Your task to perform on an android device: Open battery settings Image 0: 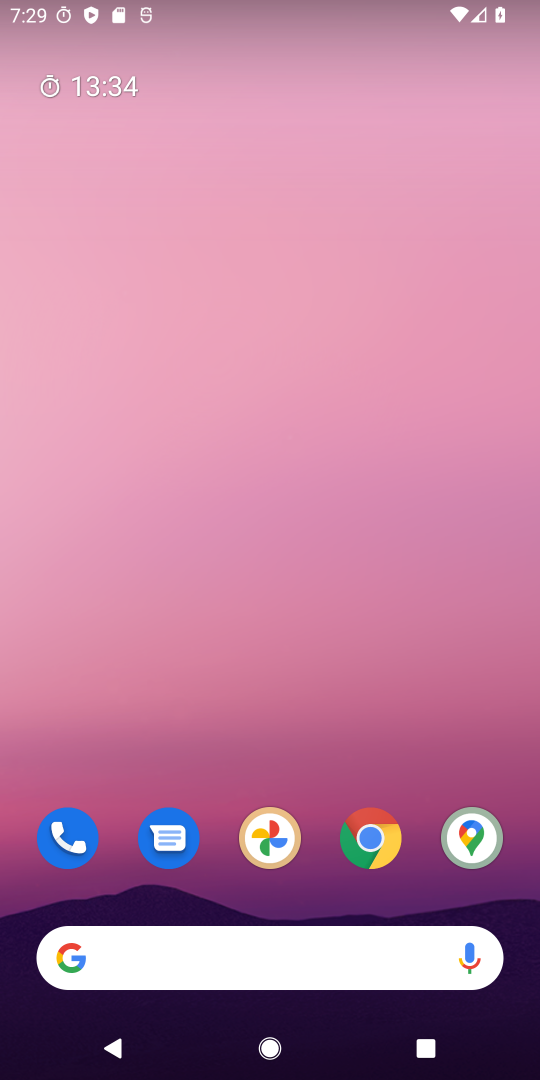
Step 0: drag from (307, 793) to (506, 10)
Your task to perform on an android device: Open battery settings Image 1: 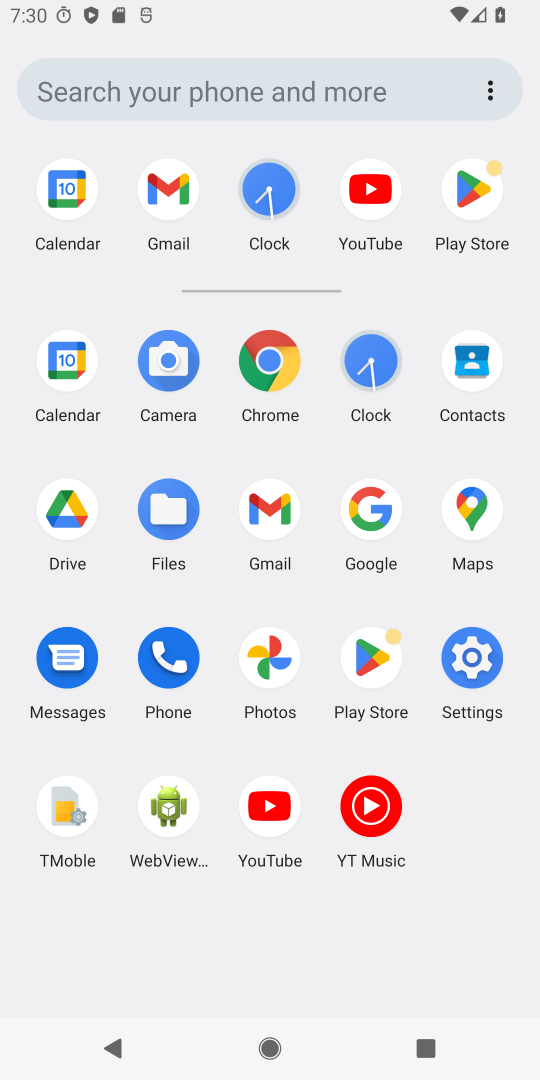
Step 1: click (473, 665)
Your task to perform on an android device: Open battery settings Image 2: 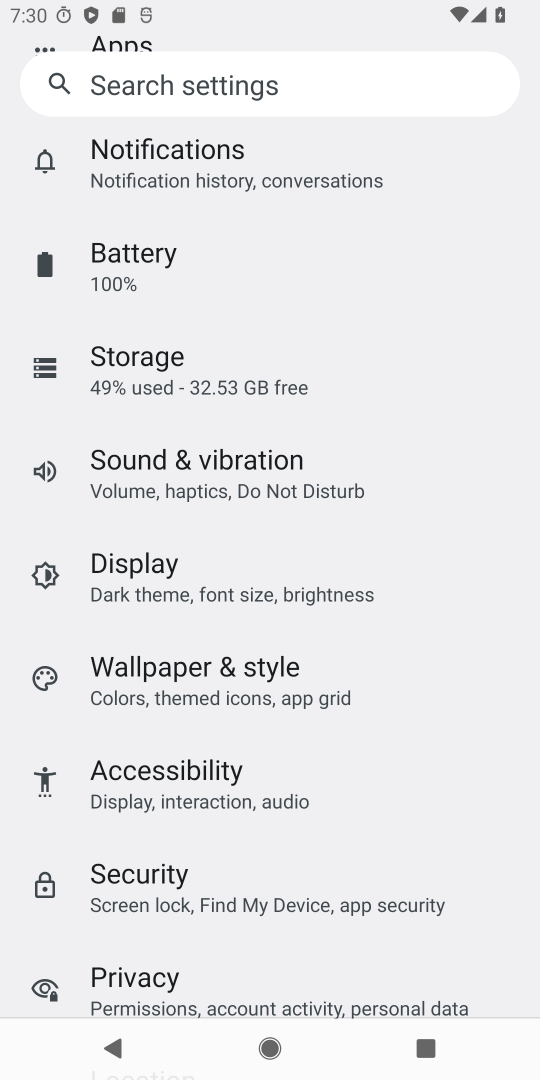
Step 2: click (151, 270)
Your task to perform on an android device: Open battery settings Image 3: 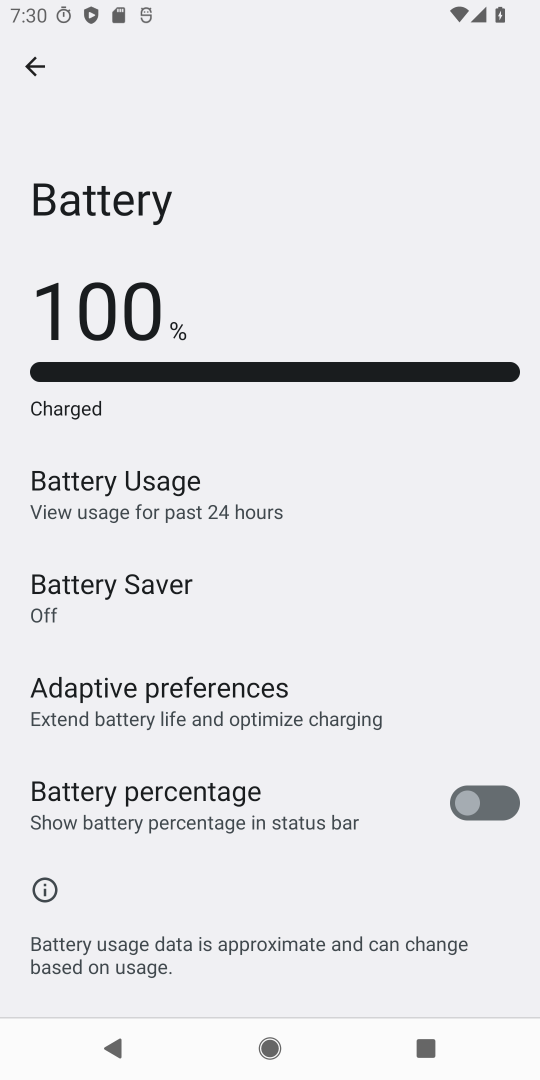
Step 3: task complete